Your task to perform on an android device: Open calendar and show me the first week of next month Image 0: 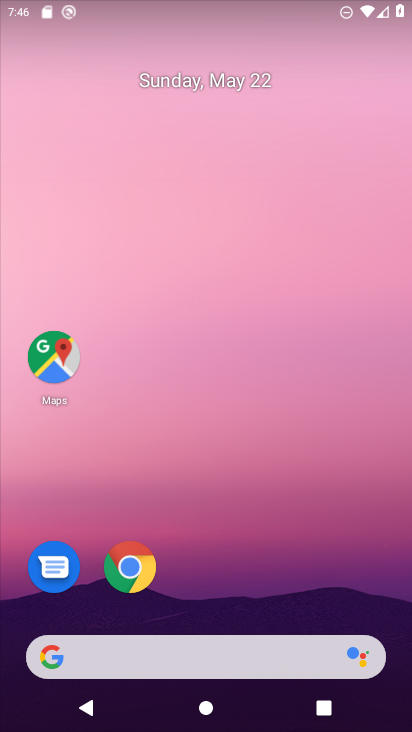
Step 0: drag from (212, 611) to (290, 164)
Your task to perform on an android device: Open calendar and show me the first week of next month Image 1: 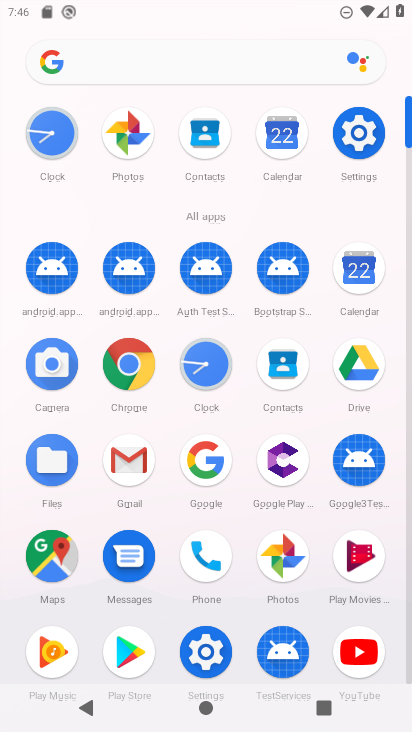
Step 1: click (332, 283)
Your task to perform on an android device: Open calendar and show me the first week of next month Image 2: 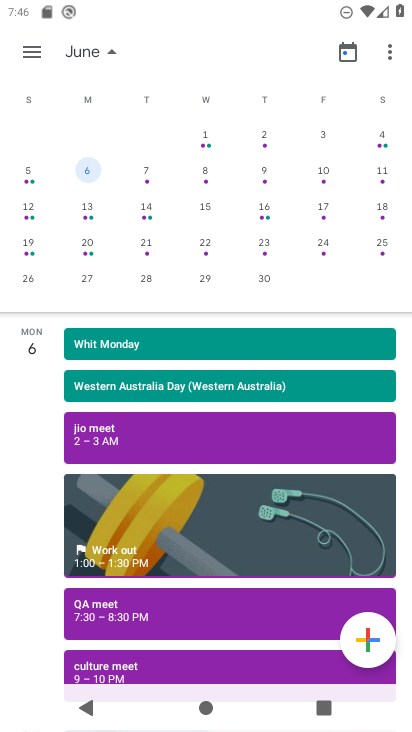
Step 2: click (364, 235)
Your task to perform on an android device: Open calendar and show me the first week of next month Image 3: 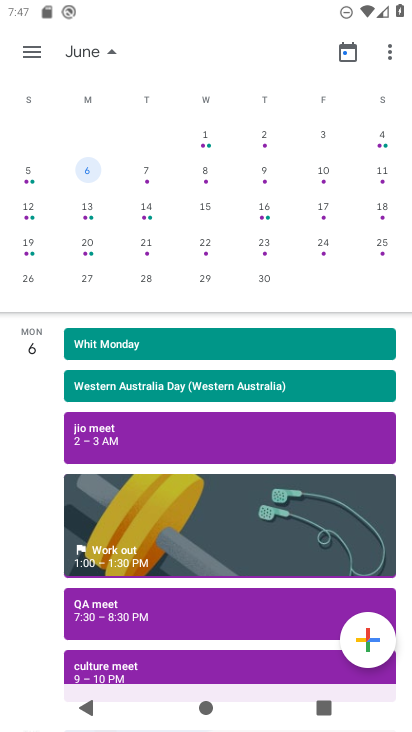
Step 3: click (210, 130)
Your task to perform on an android device: Open calendar and show me the first week of next month Image 4: 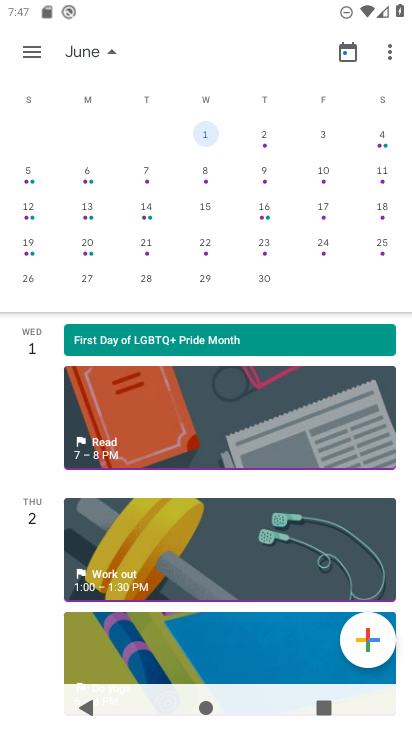
Step 4: task complete